Your task to perform on an android device: empty trash in the gmail app Image 0: 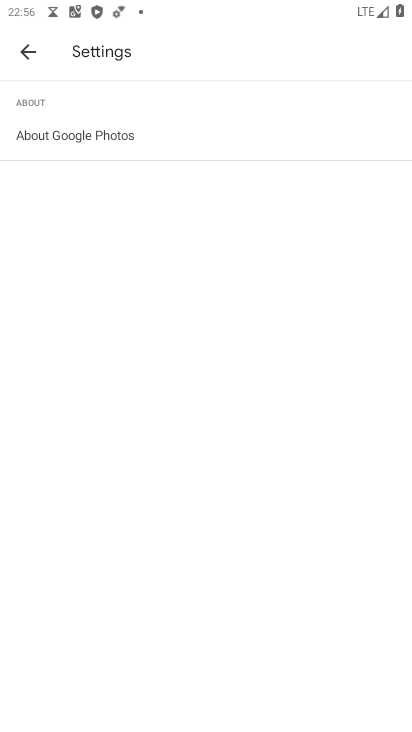
Step 0: press back button
Your task to perform on an android device: empty trash in the gmail app Image 1: 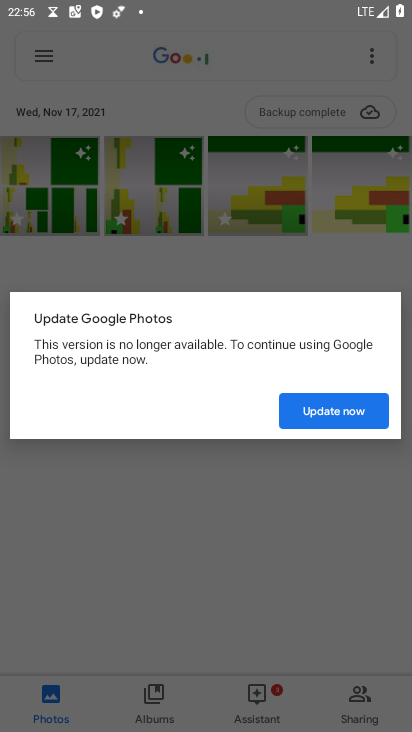
Step 1: press home button
Your task to perform on an android device: empty trash in the gmail app Image 2: 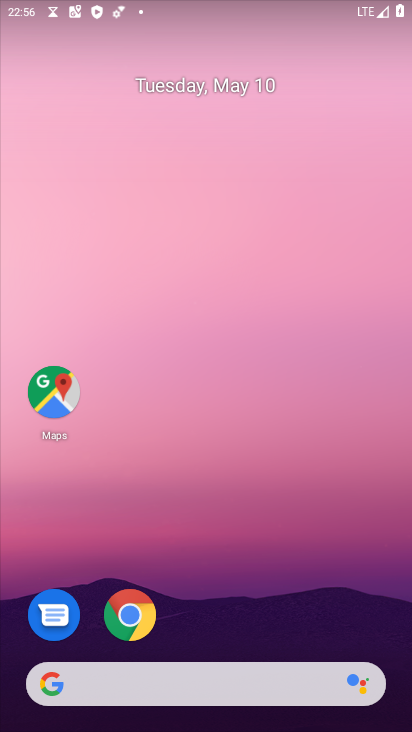
Step 2: drag from (240, 599) to (250, 71)
Your task to perform on an android device: empty trash in the gmail app Image 3: 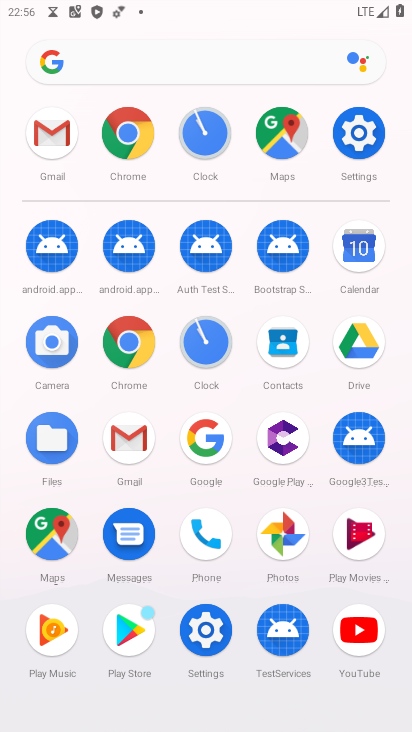
Step 3: click (48, 134)
Your task to perform on an android device: empty trash in the gmail app Image 4: 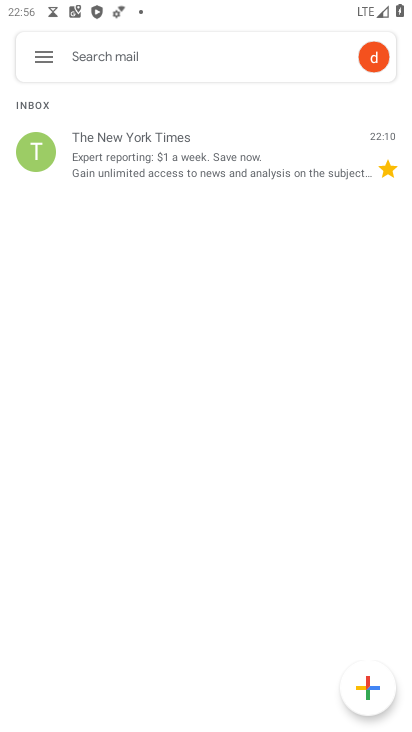
Step 4: click (42, 58)
Your task to perform on an android device: empty trash in the gmail app Image 5: 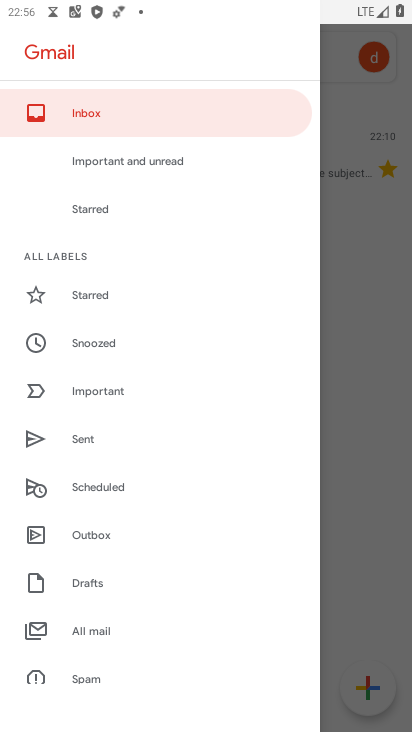
Step 5: drag from (95, 425) to (139, 358)
Your task to perform on an android device: empty trash in the gmail app Image 6: 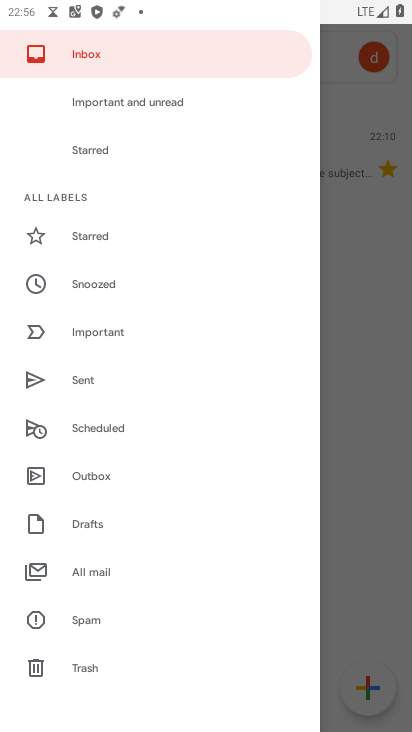
Step 6: drag from (87, 590) to (139, 496)
Your task to perform on an android device: empty trash in the gmail app Image 7: 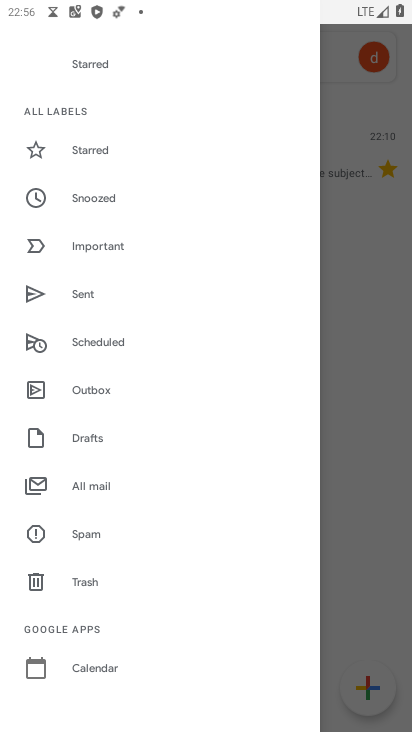
Step 7: click (61, 579)
Your task to perform on an android device: empty trash in the gmail app Image 8: 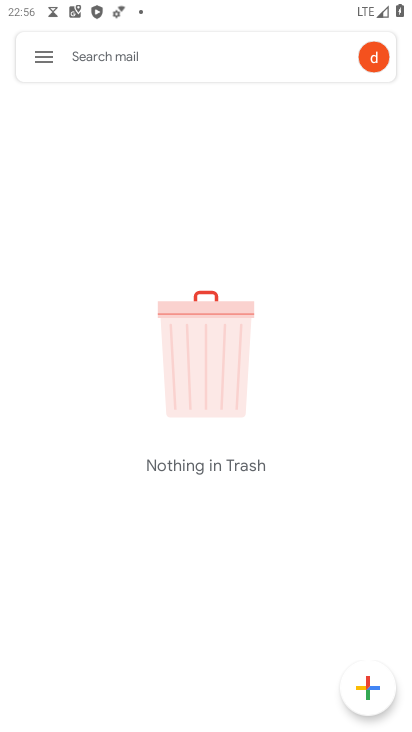
Step 8: task complete